Your task to perform on an android device: check data usage Image 0: 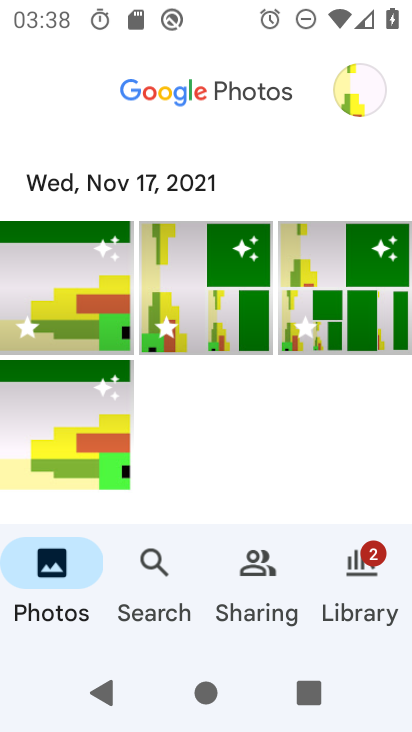
Step 0: press home button
Your task to perform on an android device: check data usage Image 1: 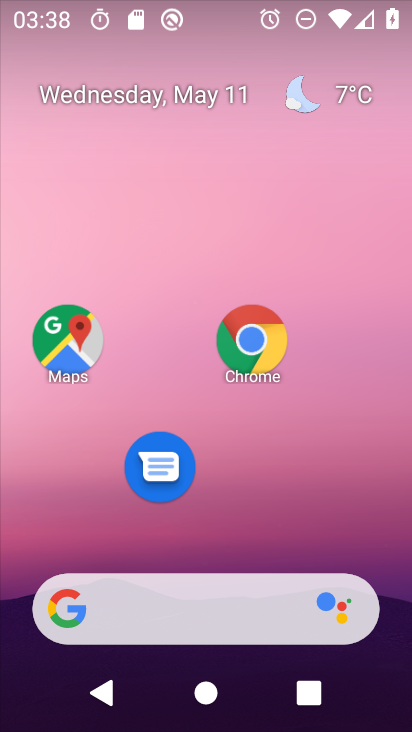
Step 1: drag from (163, 610) to (290, 138)
Your task to perform on an android device: check data usage Image 2: 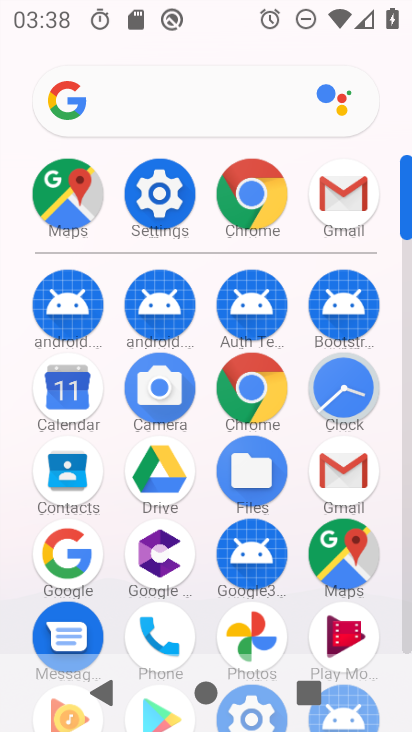
Step 2: click (166, 196)
Your task to perform on an android device: check data usage Image 3: 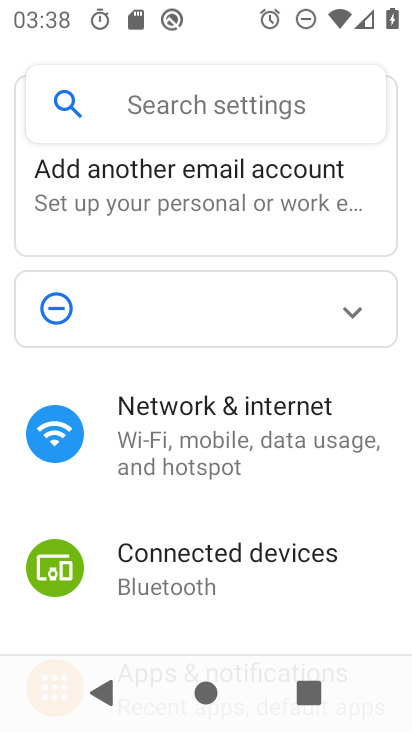
Step 3: click (220, 439)
Your task to perform on an android device: check data usage Image 4: 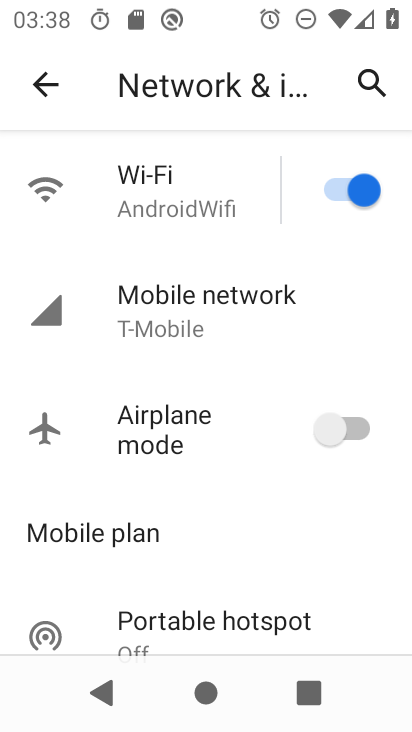
Step 4: click (162, 201)
Your task to perform on an android device: check data usage Image 5: 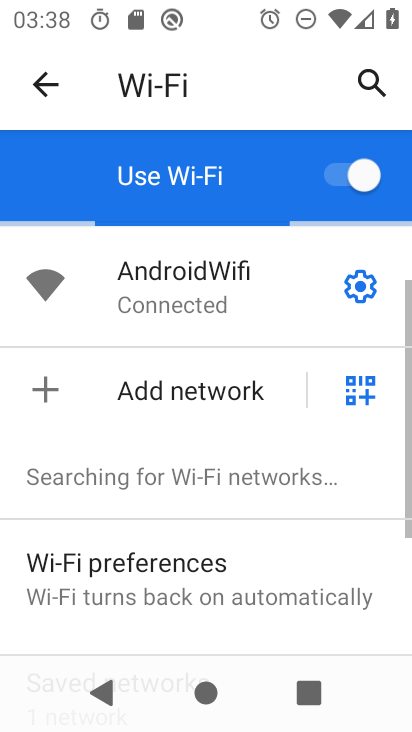
Step 5: drag from (163, 571) to (278, 204)
Your task to perform on an android device: check data usage Image 6: 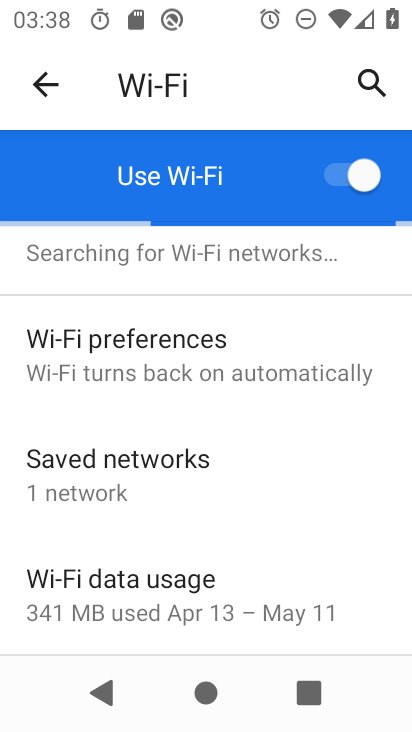
Step 6: click (162, 589)
Your task to perform on an android device: check data usage Image 7: 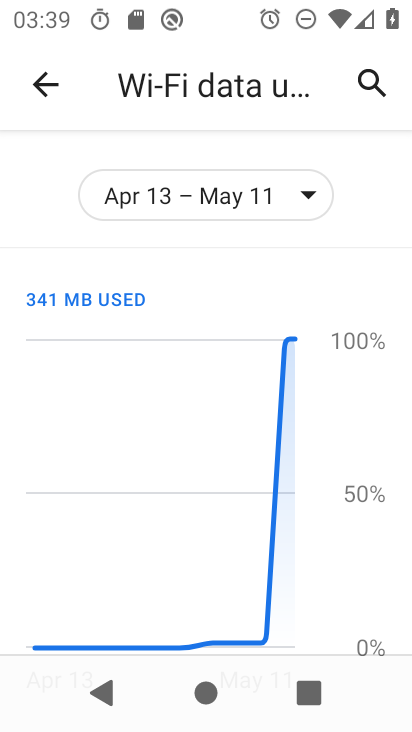
Step 7: task complete